Your task to perform on an android device: show emergency info Image 0: 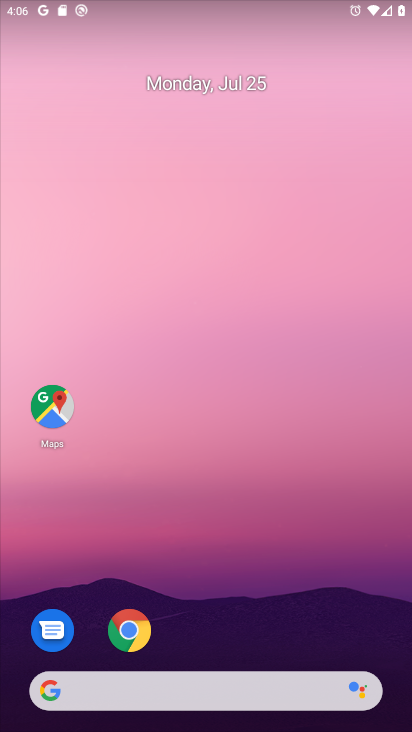
Step 0: drag from (203, 686) to (233, 231)
Your task to perform on an android device: show emergency info Image 1: 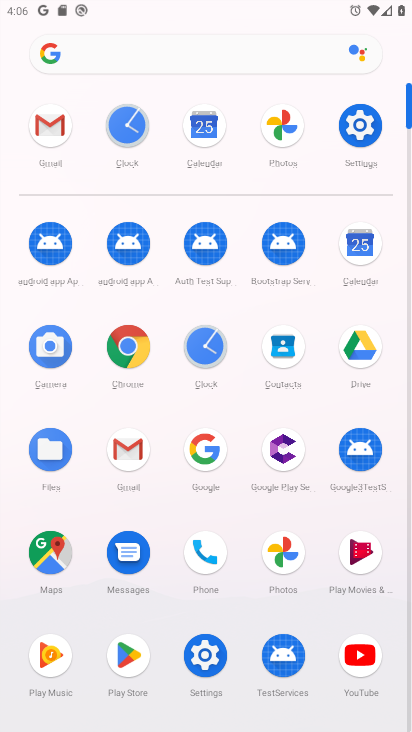
Step 1: click (361, 120)
Your task to perform on an android device: show emergency info Image 2: 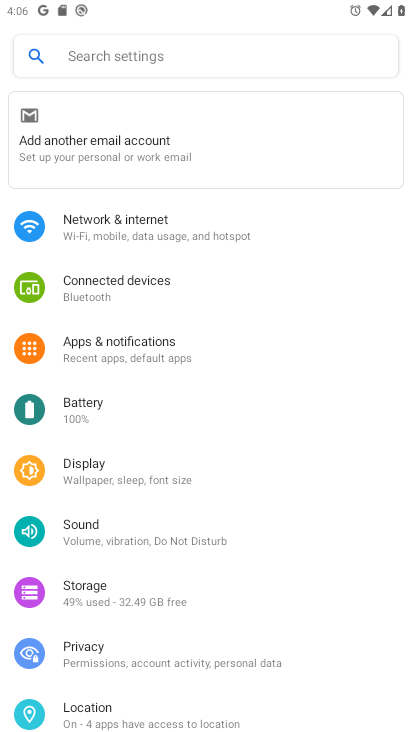
Step 2: drag from (117, 427) to (143, 298)
Your task to perform on an android device: show emergency info Image 3: 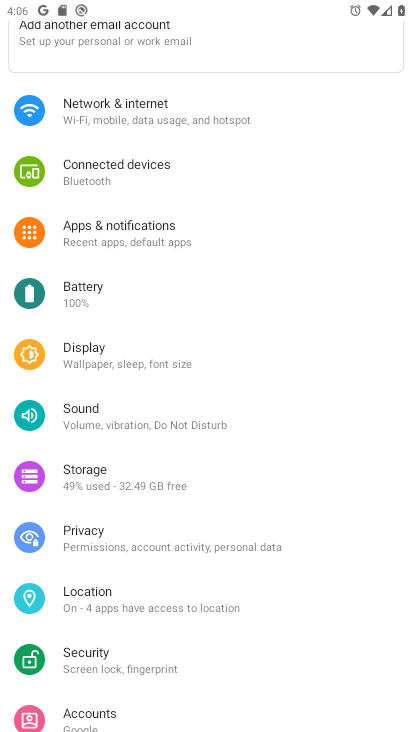
Step 3: drag from (146, 396) to (195, 335)
Your task to perform on an android device: show emergency info Image 4: 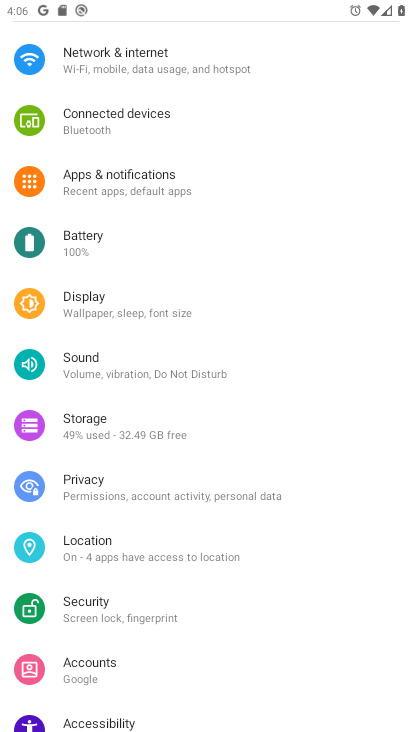
Step 4: drag from (160, 453) to (212, 325)
Your task to perform on an android device: show emergency info Image 5: 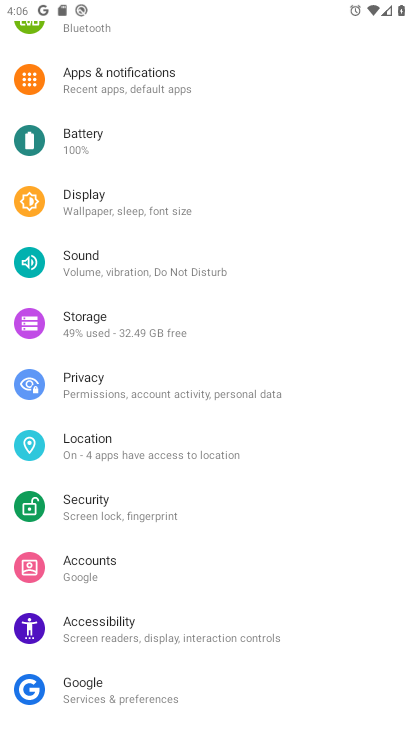
Step 5: drag from (143, 571) to (215, 392)
Your task to perform on an android device: show emergency info Image 6: 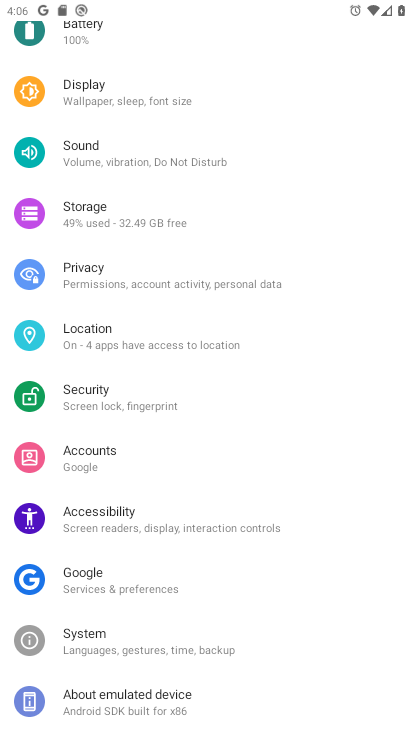
Step 6: drag from (164, 622) to (252, 463)
Your task to perform on an android device: show emergency info Image 7: 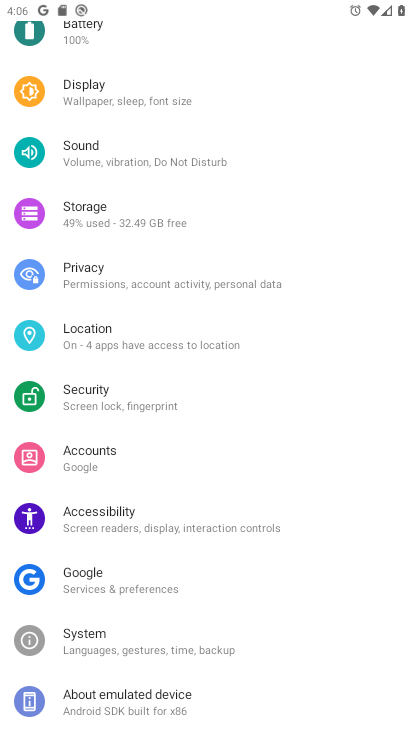
Step 7: click (148, 696)
Your task to perform on an android device: show emergency info Image 8: 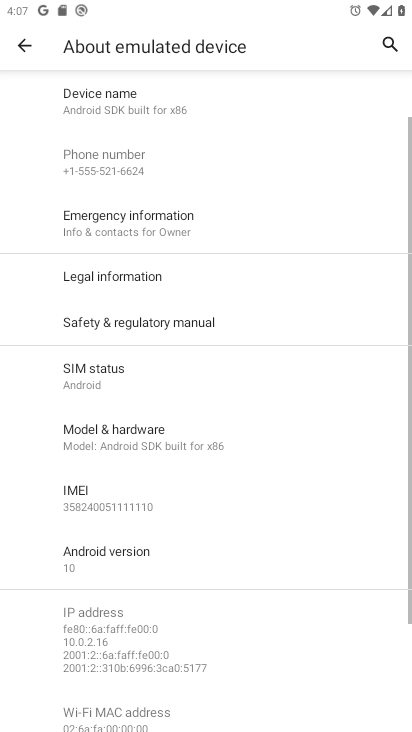
Step 8: click (130, 240)
Your task to perform on an android device: show emergency info Image 9: 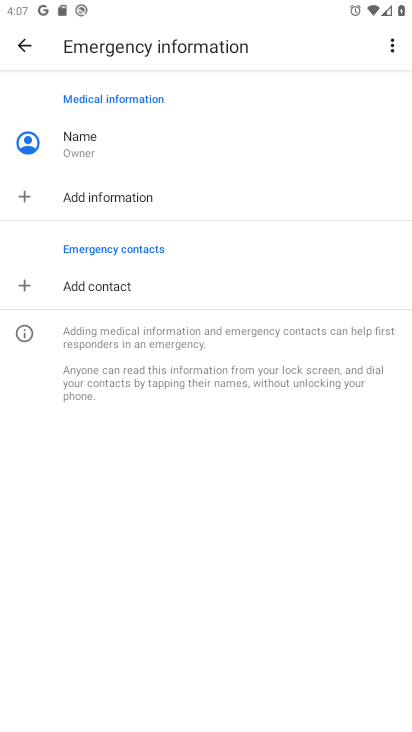
Step 9: task complete